Your task to perform on an android device: Search for seafood restaurants on Google Maps Image 0: 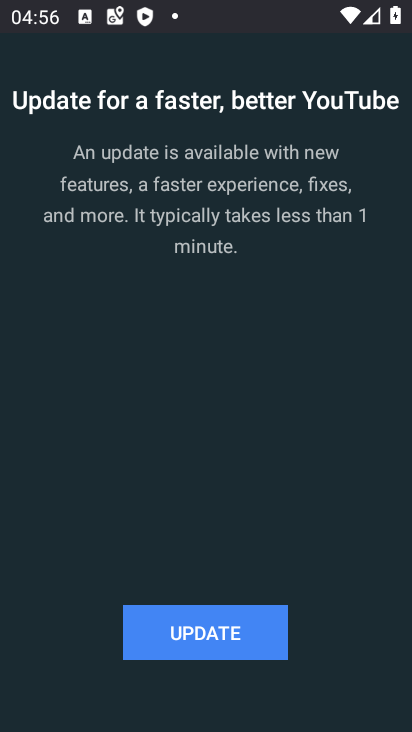
Step 0: press home button
Your task to perform on an android device: Search for seafood restaurants on Google Maps Image 1: 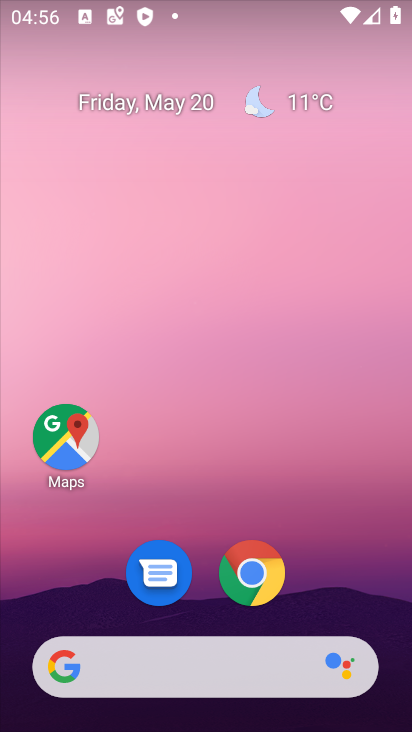
Step 1: click (65, 441)
Your task to perform on an android device: Search for seafood restaurants on Google Maps Image 2: 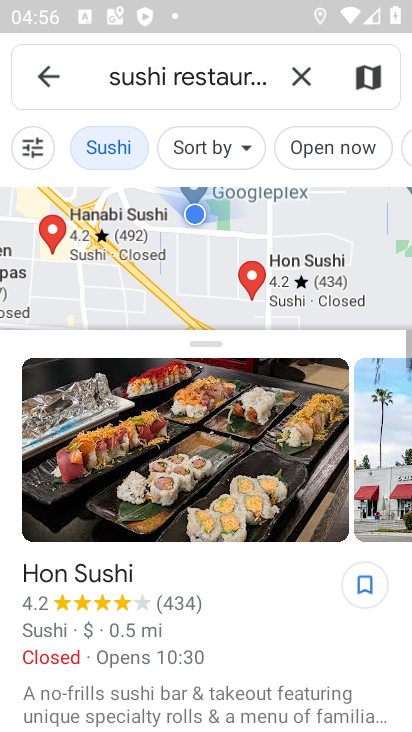
Step 2: click (302, 76)
Your task to perform on an android device: Search for seafood restaurants on Google Maps Image 3: 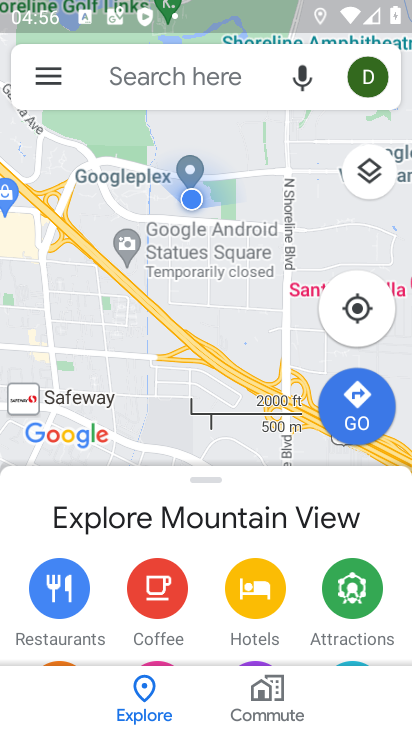
Step 3: click (113, 70)
Your task to perform on an android device: Search for seafood restaurants on Google Maps Image 4: 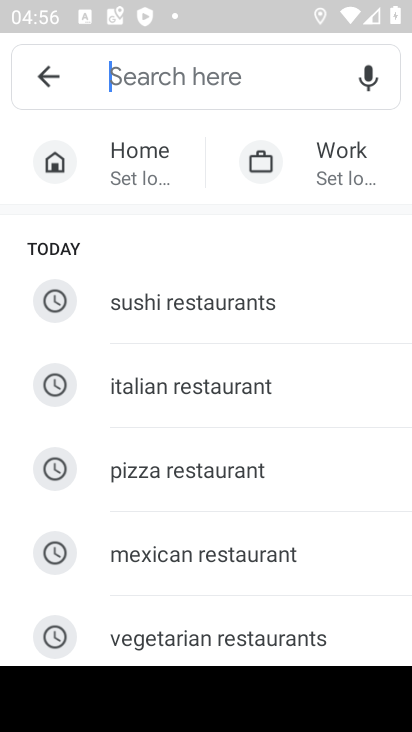
Step 4: type "seafood restaurants"
Your task to perform on an android device: Search for seafood restaurants on Google Maps Image 5: 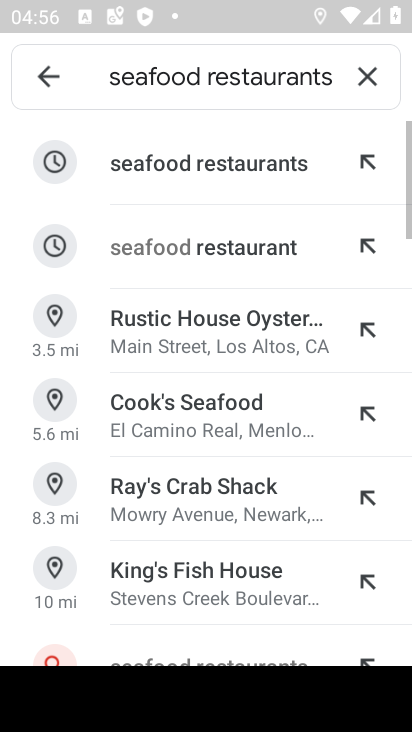
Step 5: click (164, 164)
Your task to perform on an android device: Search for seafood restaurants on Google Maps Image 6: 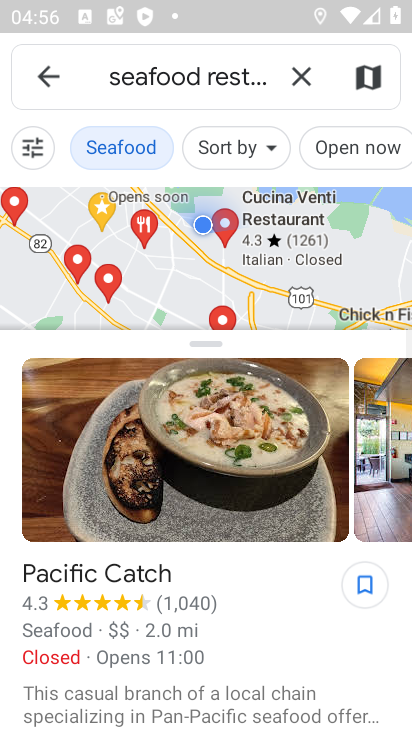
Step 6: task complete